Your task to perform on an android device: Clear all items from cart on amazon. Add usb-c to the cart on amazon Image 0: 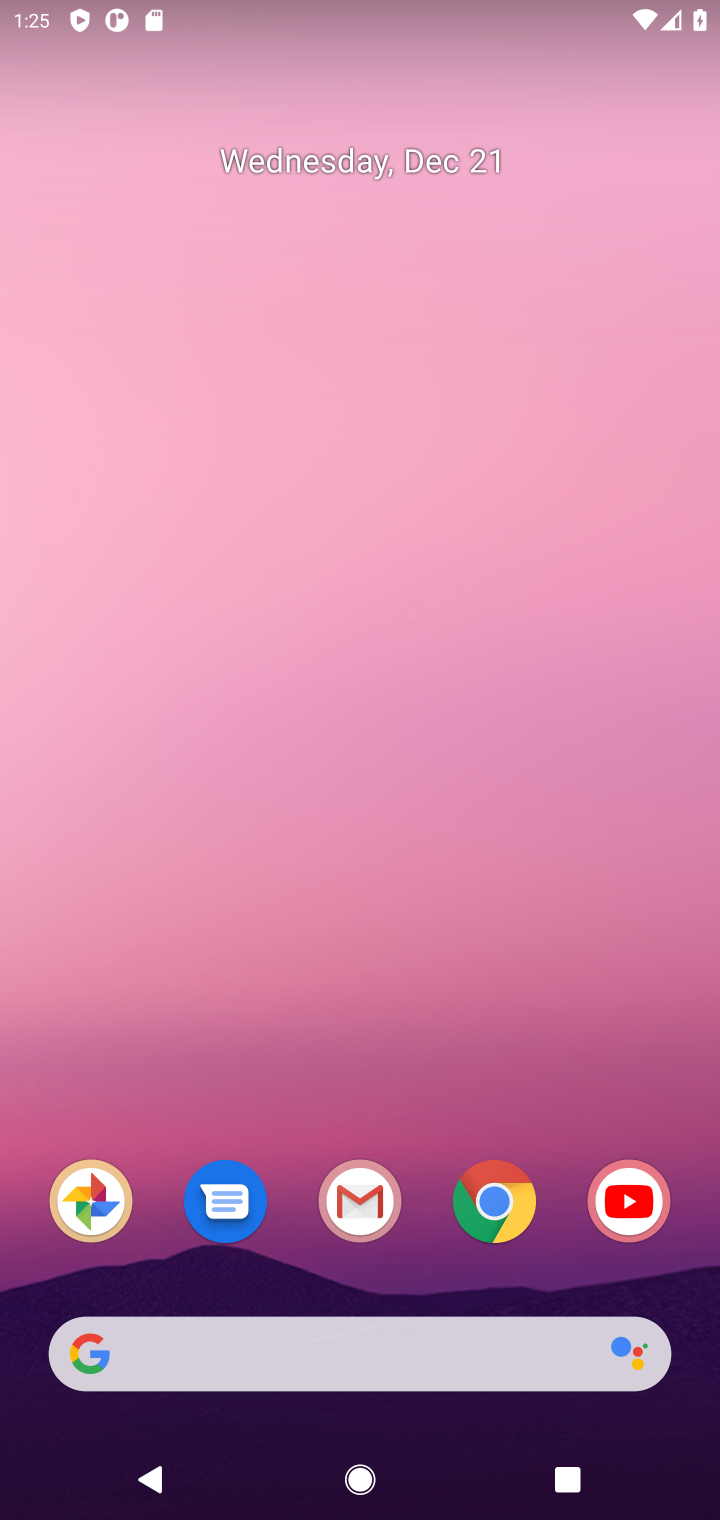
Step 0: click (502, 1195)
Your task to perform on an android device: Clear all items from cart on amazon. Add usb-c to the cart on amazon Image 1: 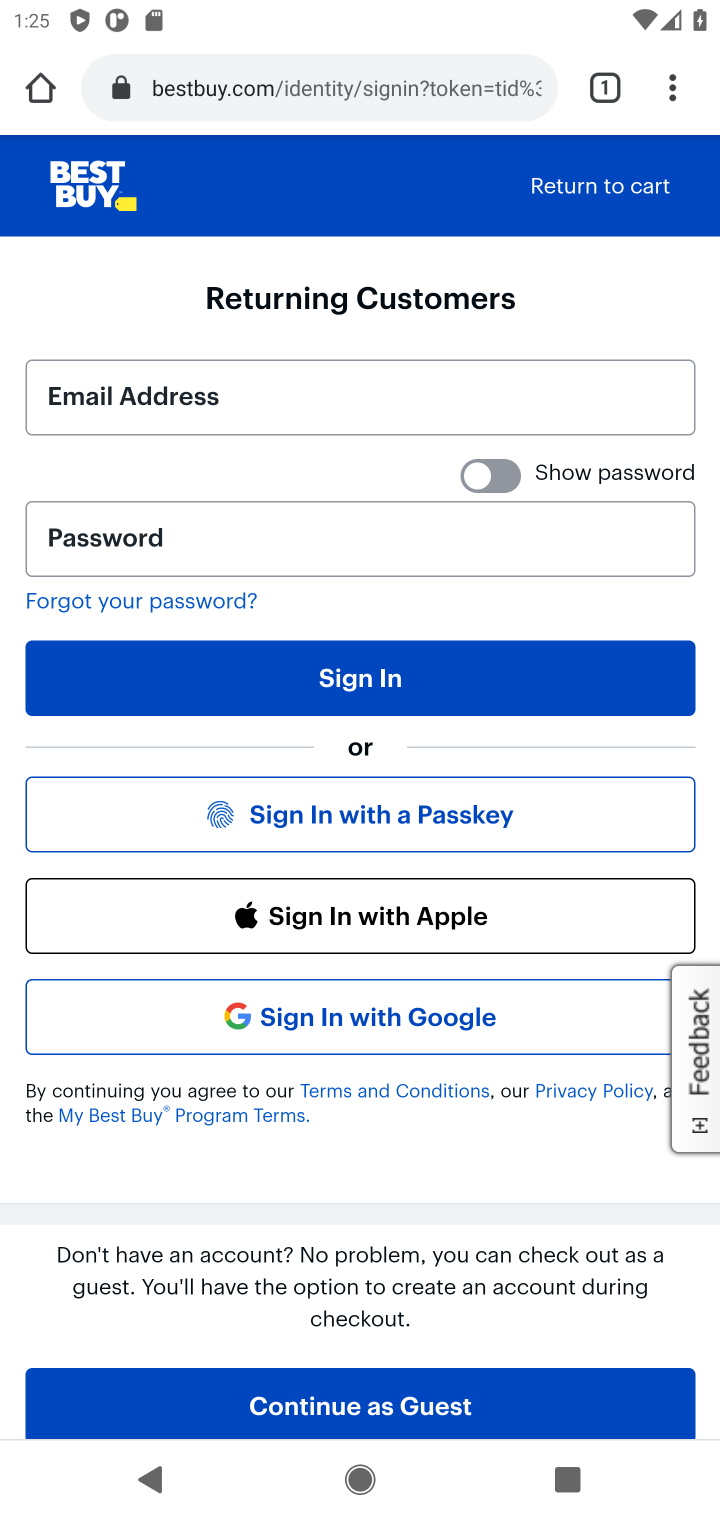
Step 1: click (245, 93)
Your task to perform on an android device: Clear all items from cart on amazon. Add usb-c to the cart on amazon Image 2: 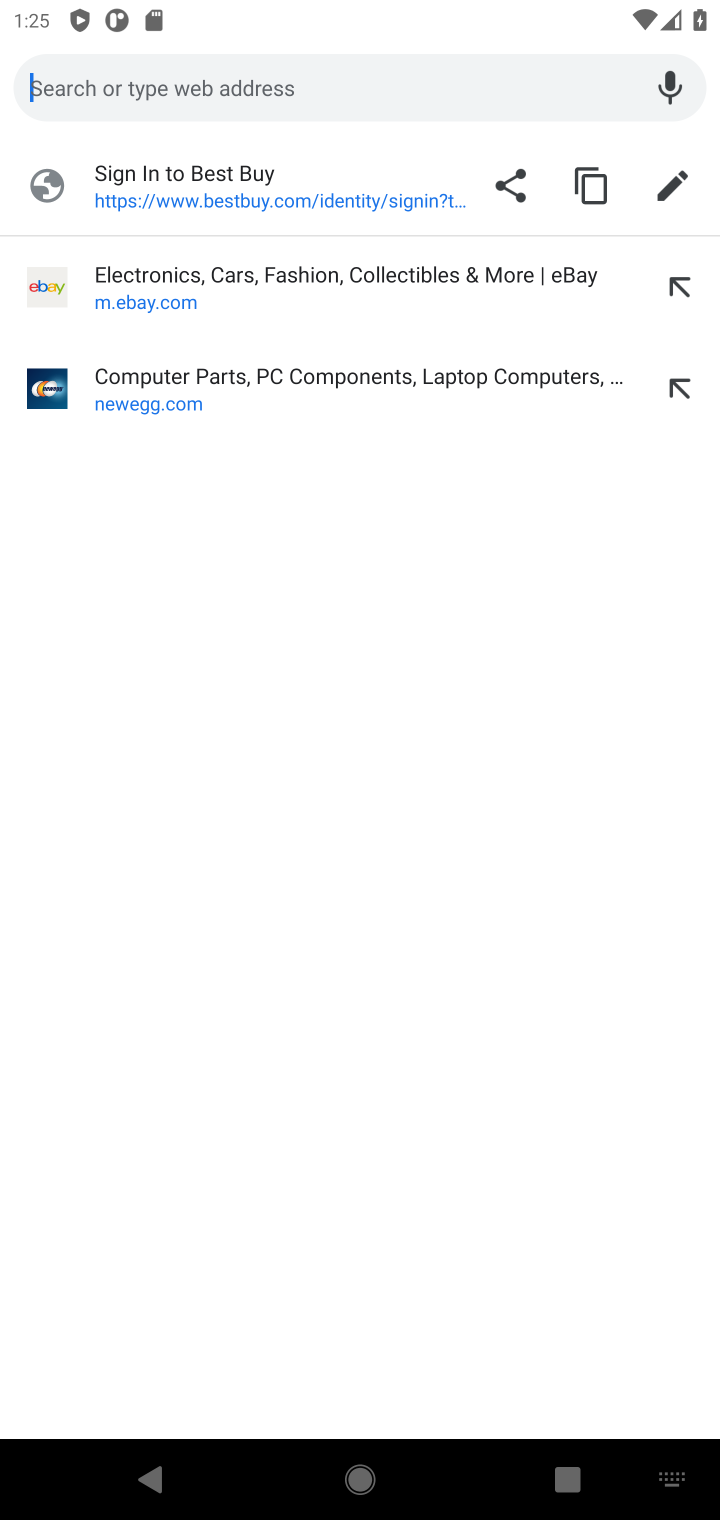
Step 2: type "amazon.com"
Your task to perform on an android device: Clear all items from cart on amazon. Add usb-c to the cart on amazon Image 3: 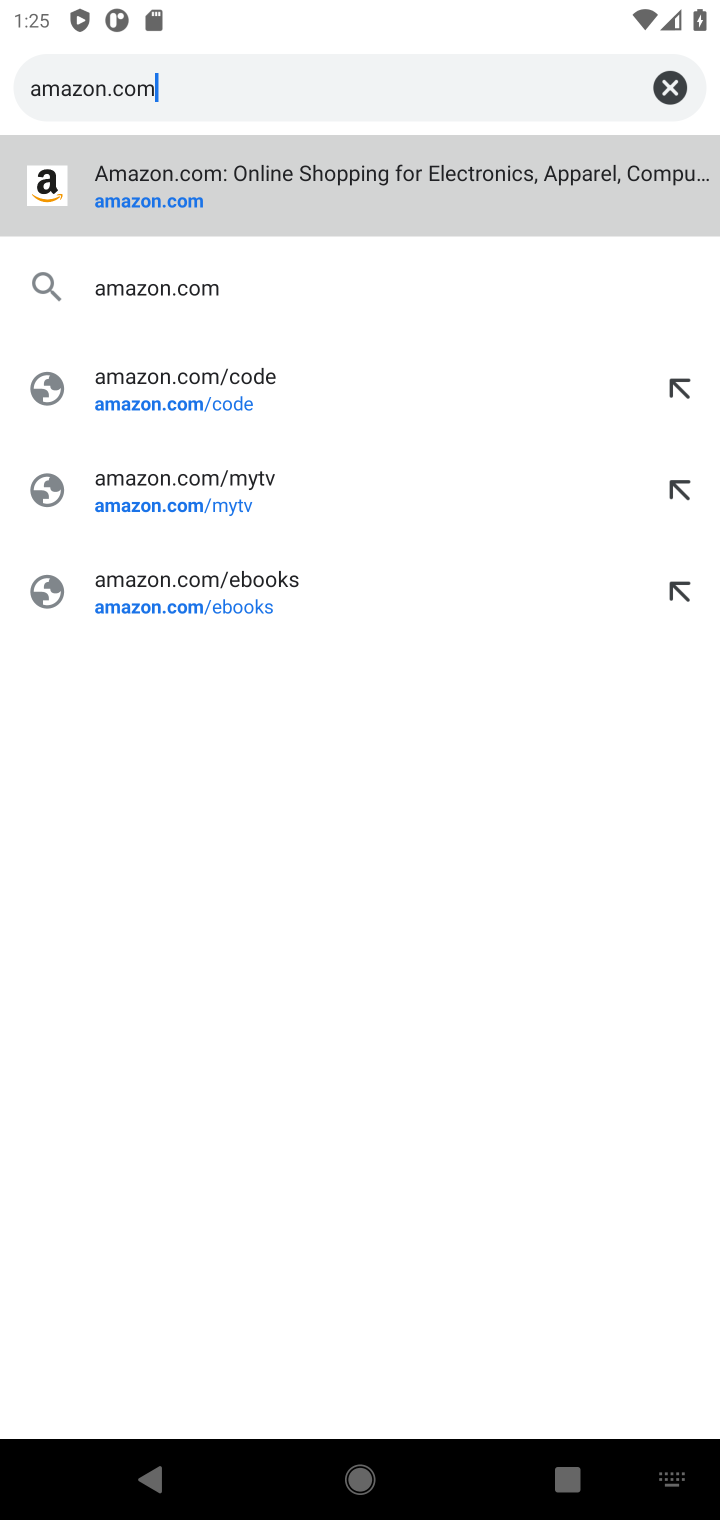
Step 3: click (150, 186)
Your task to perform on an android device: Clear all items from cart on amazon. Add usb-c to the cart on amazon Image 4: 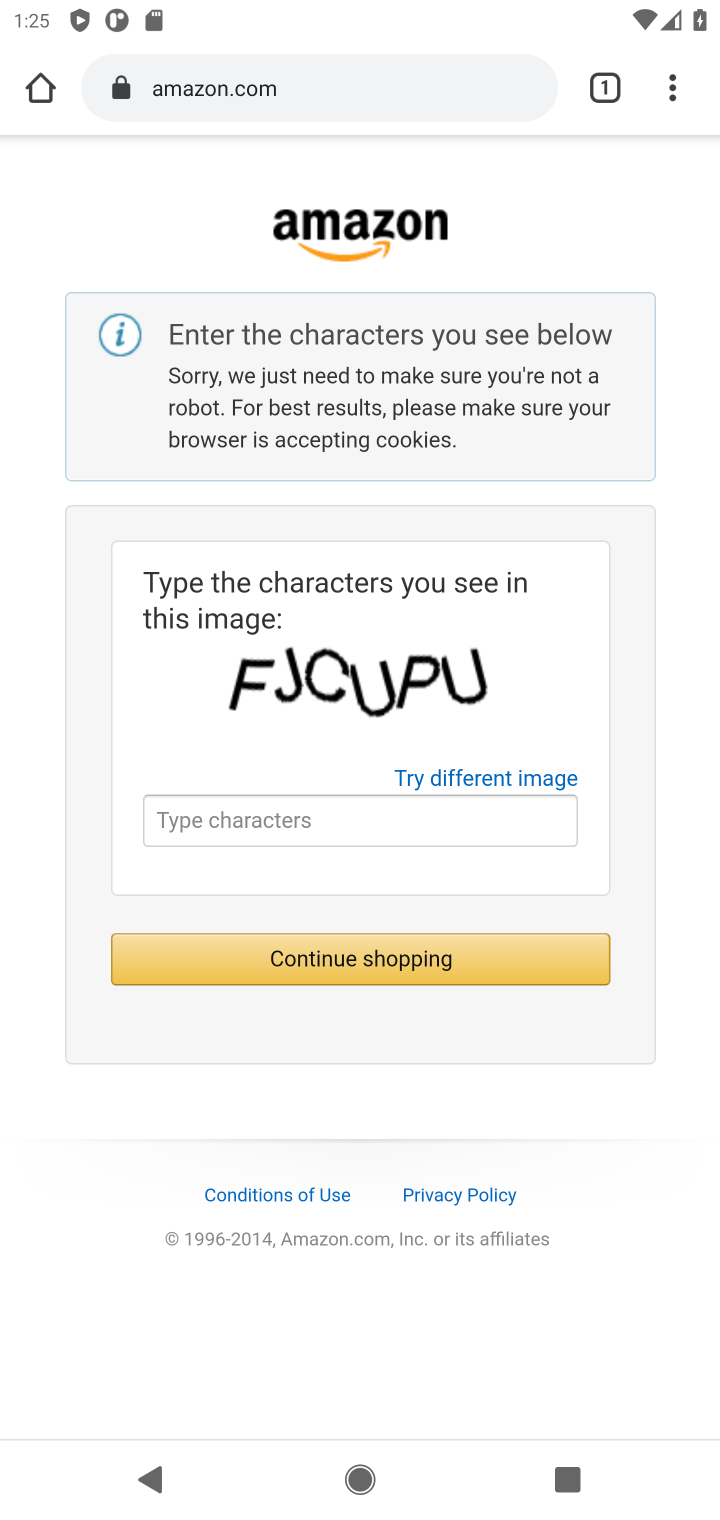
Step 4: click (205, 802)
Your task to perform on an android device: Clear all items from cart on amazon. Add usb-c to the cart on amazon Image 5: 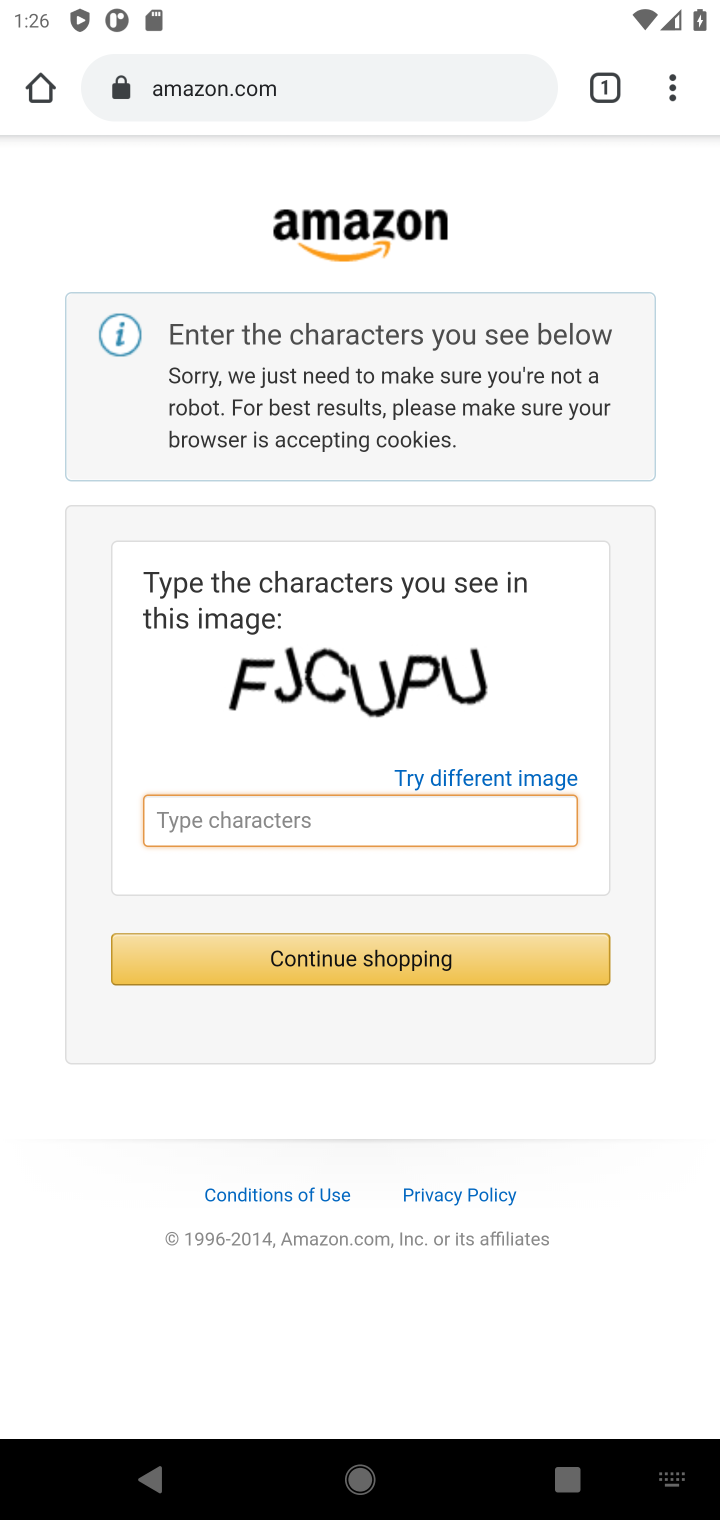
Step 5: type "FJCUPU"
Your task to perform on an android device: Clear all items from cart on amazon. Add usb-c to the cart on amazon Image 6: 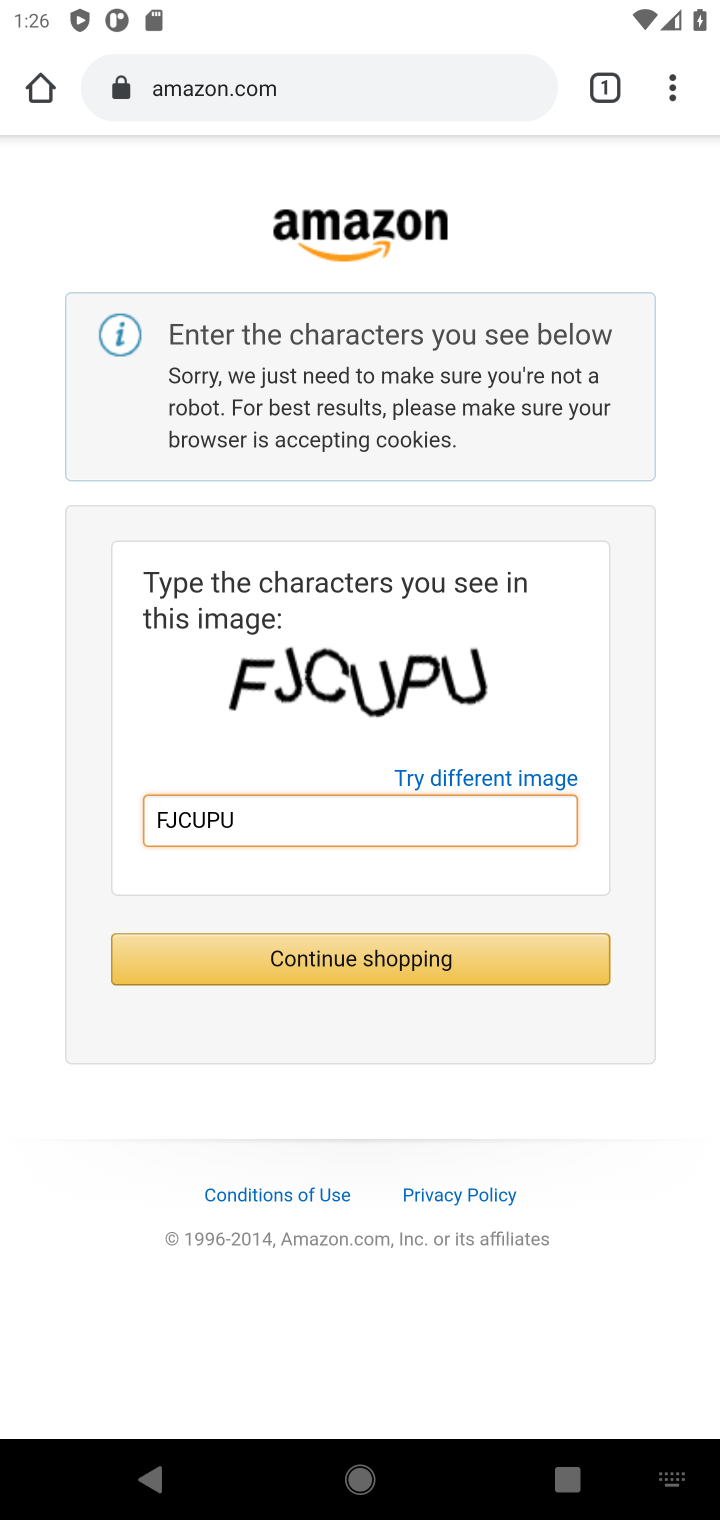
Step 6: click (370, 970)
Your task to perform on an android device: Clear all items from cart on amazon. Add usb-c to the cart on amazon Image 7: 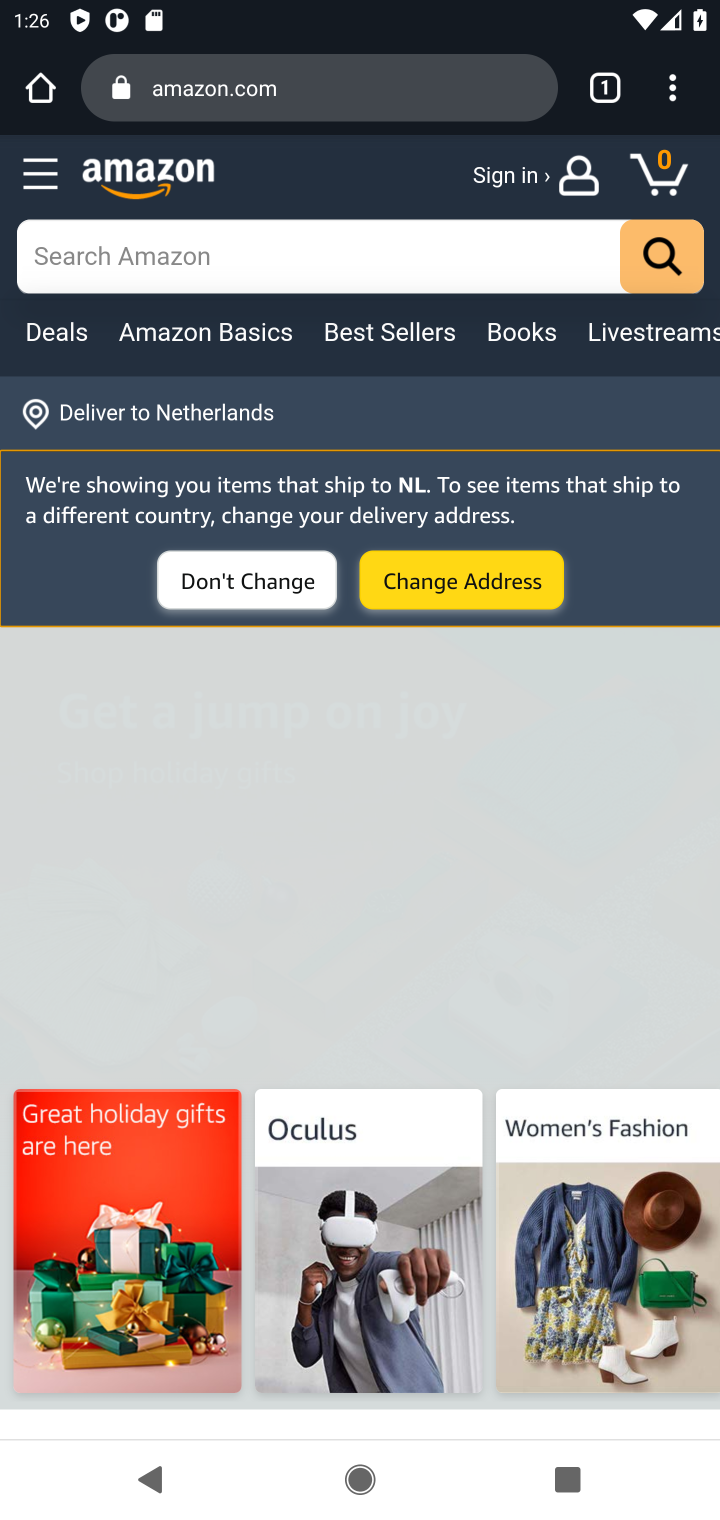
Step 7: click (659, 177)
Your task to perform on an android device: Clear all items from cart on amazon. Add usb-c to the cart on amazon Image 8: 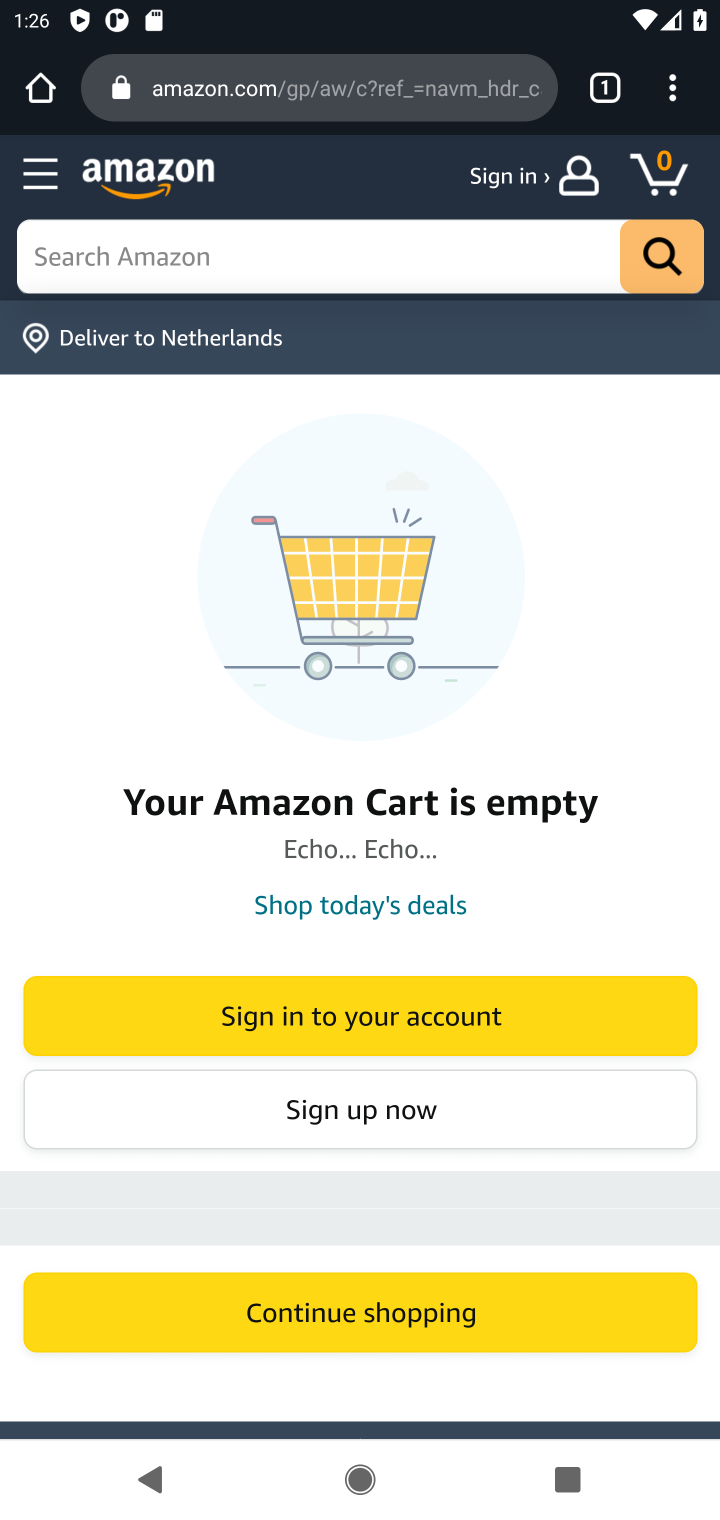
Step 8: click (218, 251)
Your task to perform on an android device: Clear all items from cart on amazon. Add usb-c to the cart on amazon Image 9: 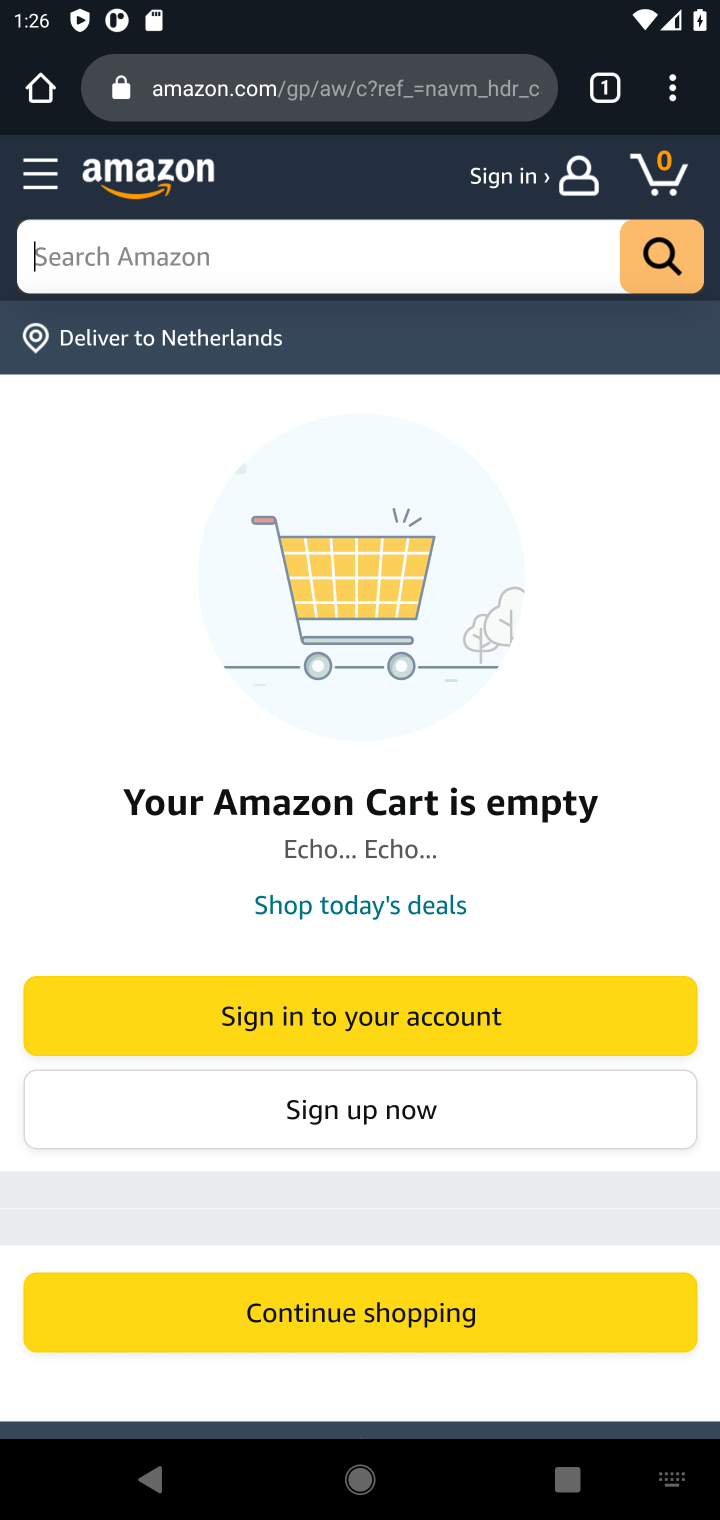
Step 9: type "usb-c"
Your task to perform on an android device: Clear all items from cart on amazon. Add usb-c to the cart on amazon Image 10: 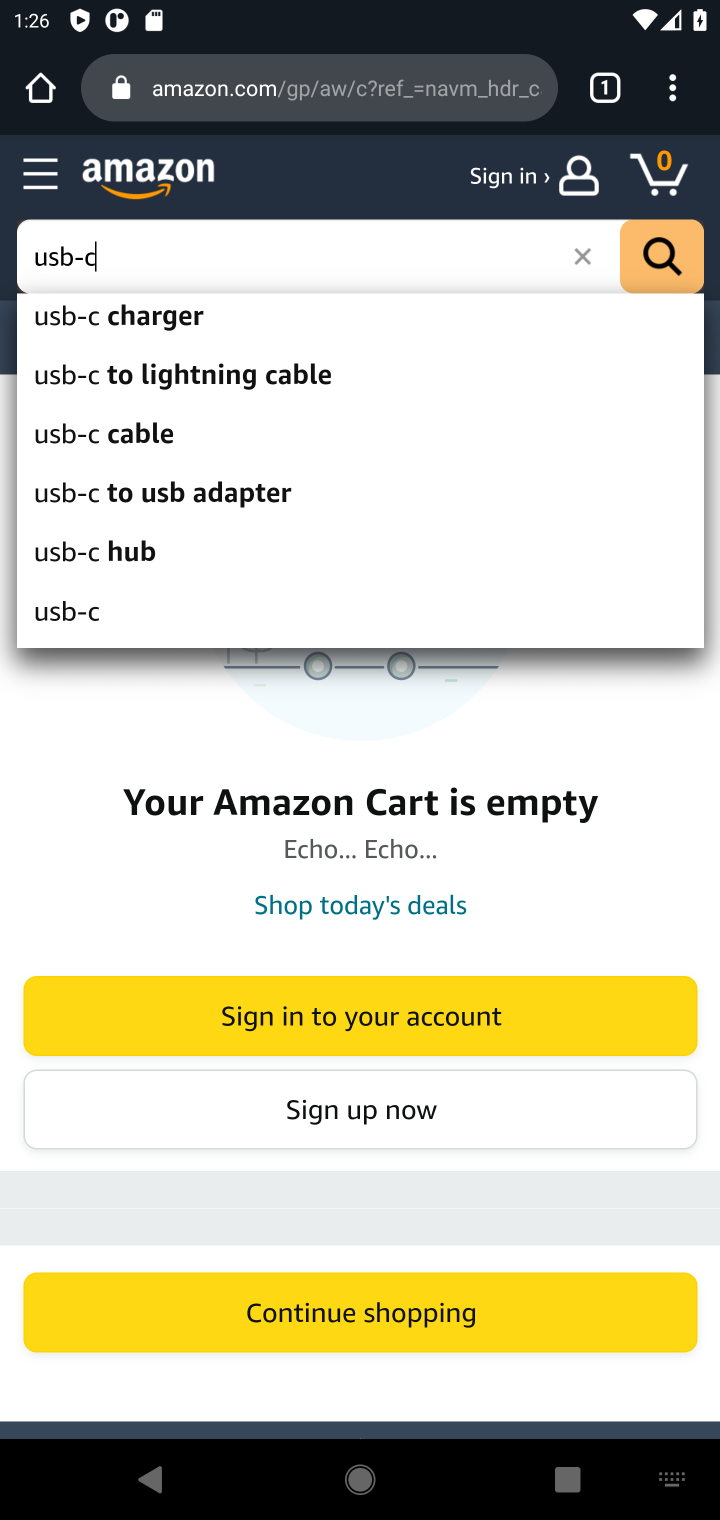
Step 10: click (75, 614)
Your task to perform on an android device: Clear all items from cart on amazon. Add usb-c to the cart on amazon Image 11: 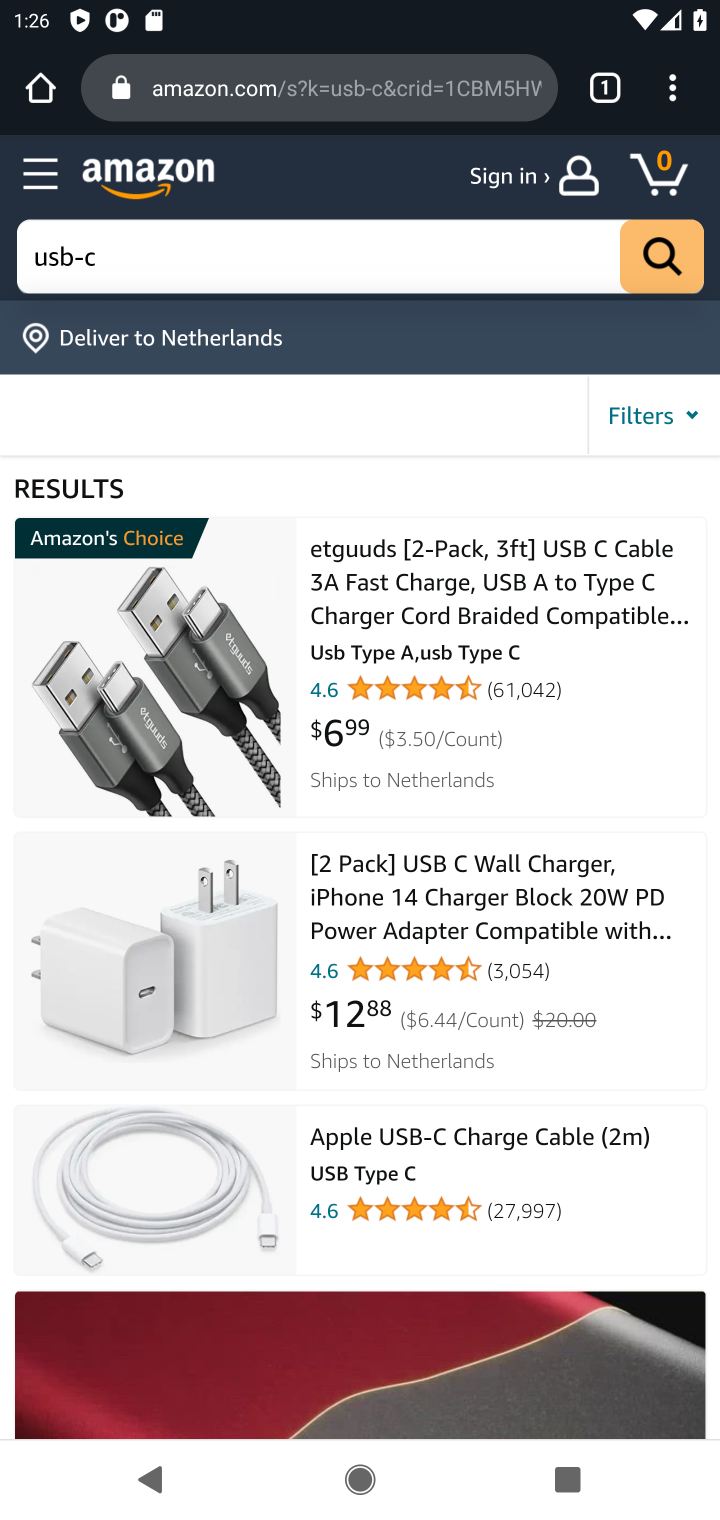
Step 11: click (412, 600)
Your task to perform on an android device: Clear all items from cart on amazon. Add usb-c to the cart on amazon Image 12: 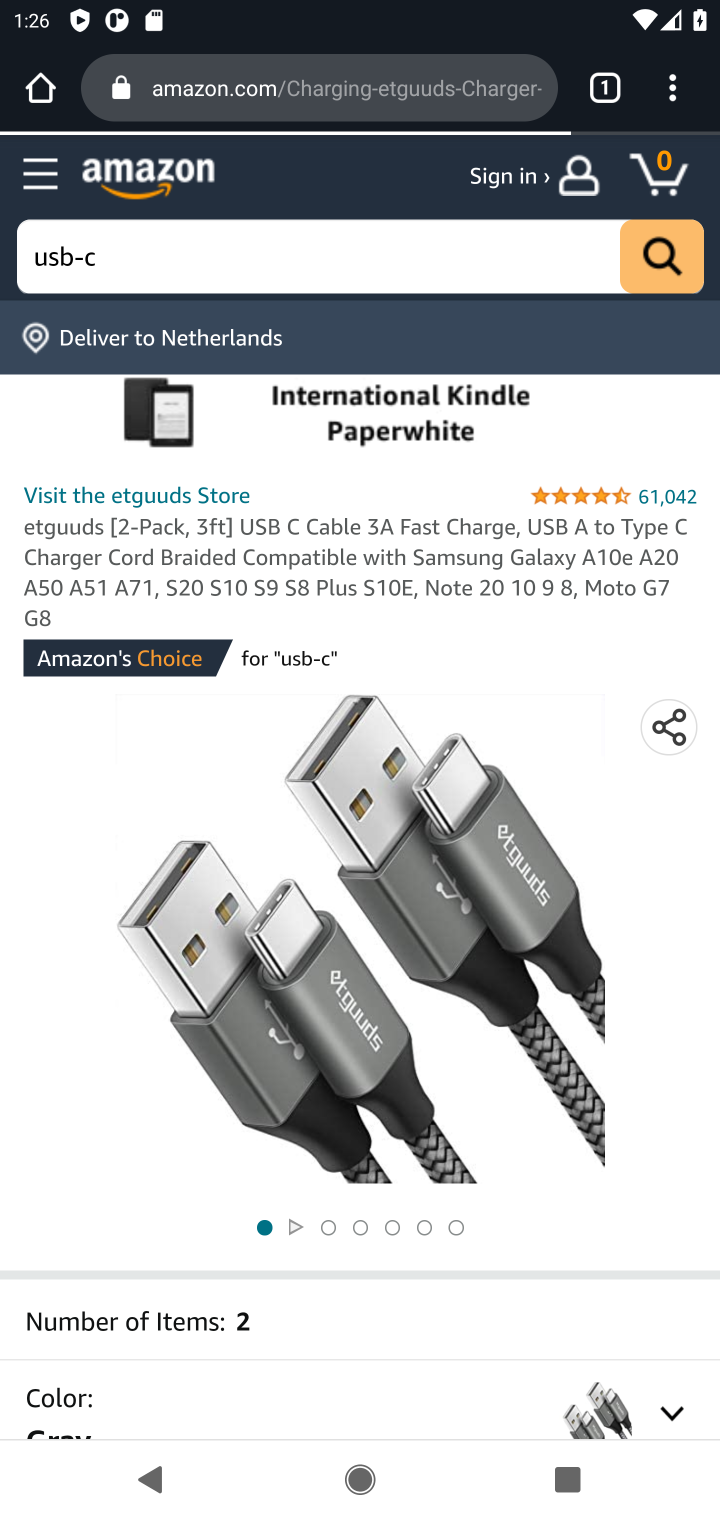
Step 12: drag from (290, 931) to (264, 470)
Your task to perform on an android device: Clear all items from cart on amazon. Add usb-c to the cart on amazon Image 13: 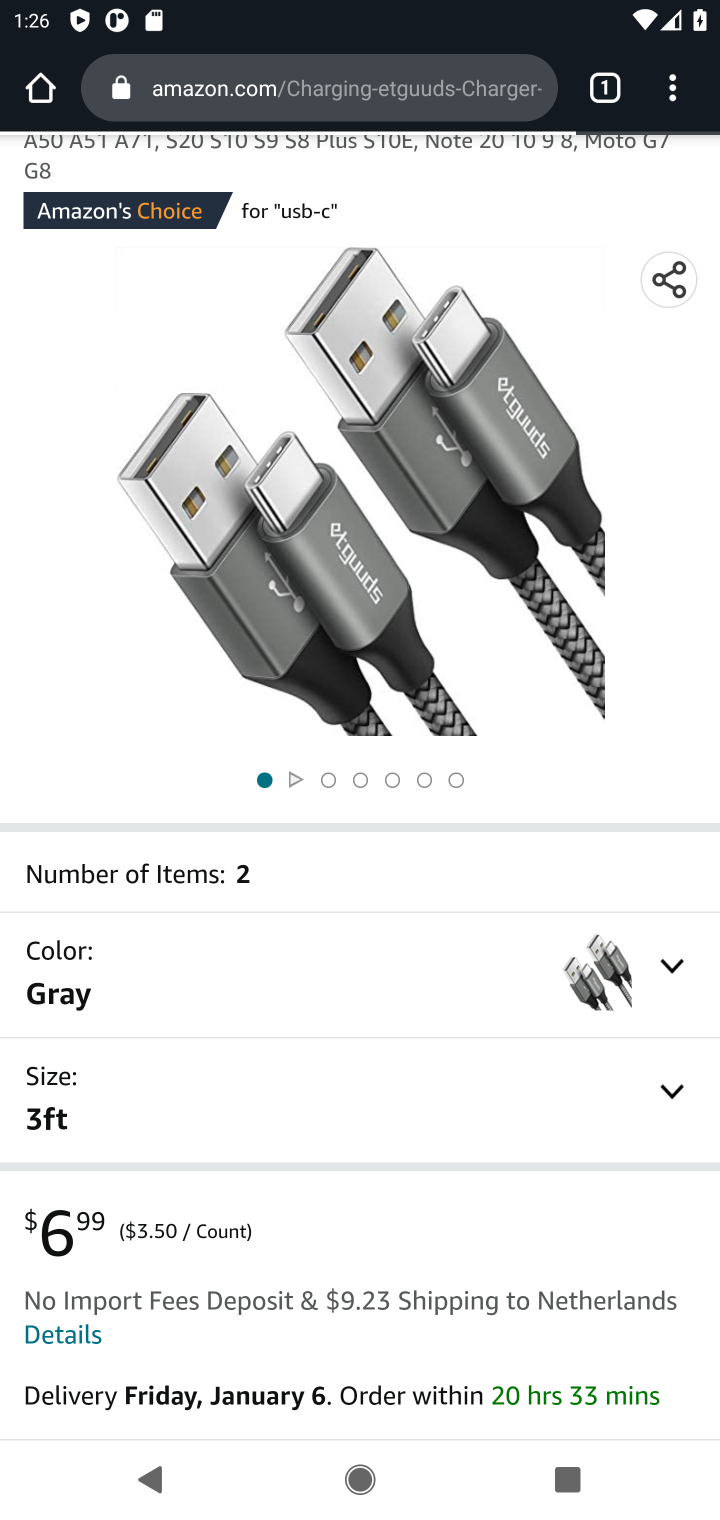
Step 13: drag from (324, 1041) to (345, 516)
Your task to perform on an android device: Clear all items from cart on amazon. Add usb-c to the cart on amazon Image 14: 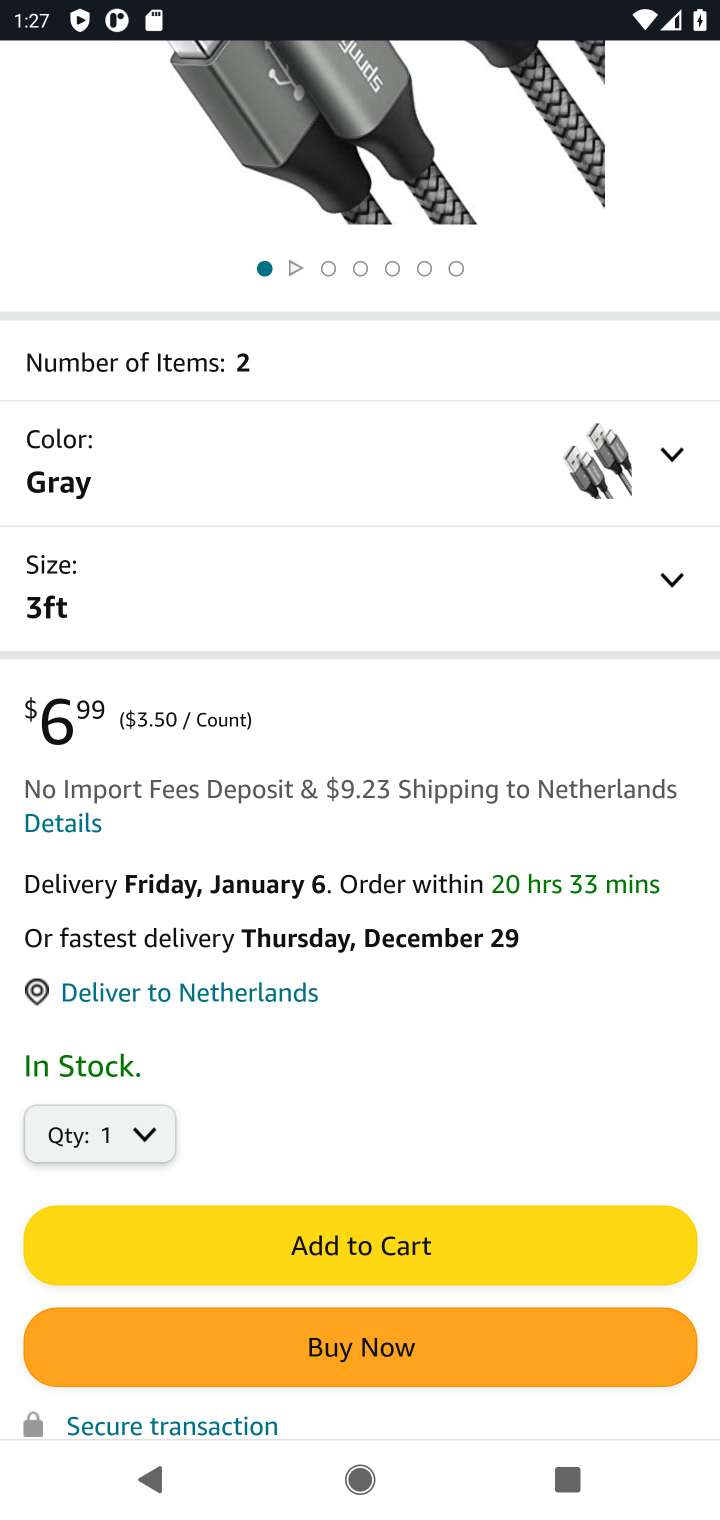
Step 14: click (298, 1238)
Your task to perform on an android device: Clear all items from cart on amazon. Add usb-c to the cart on amazon Image 15: 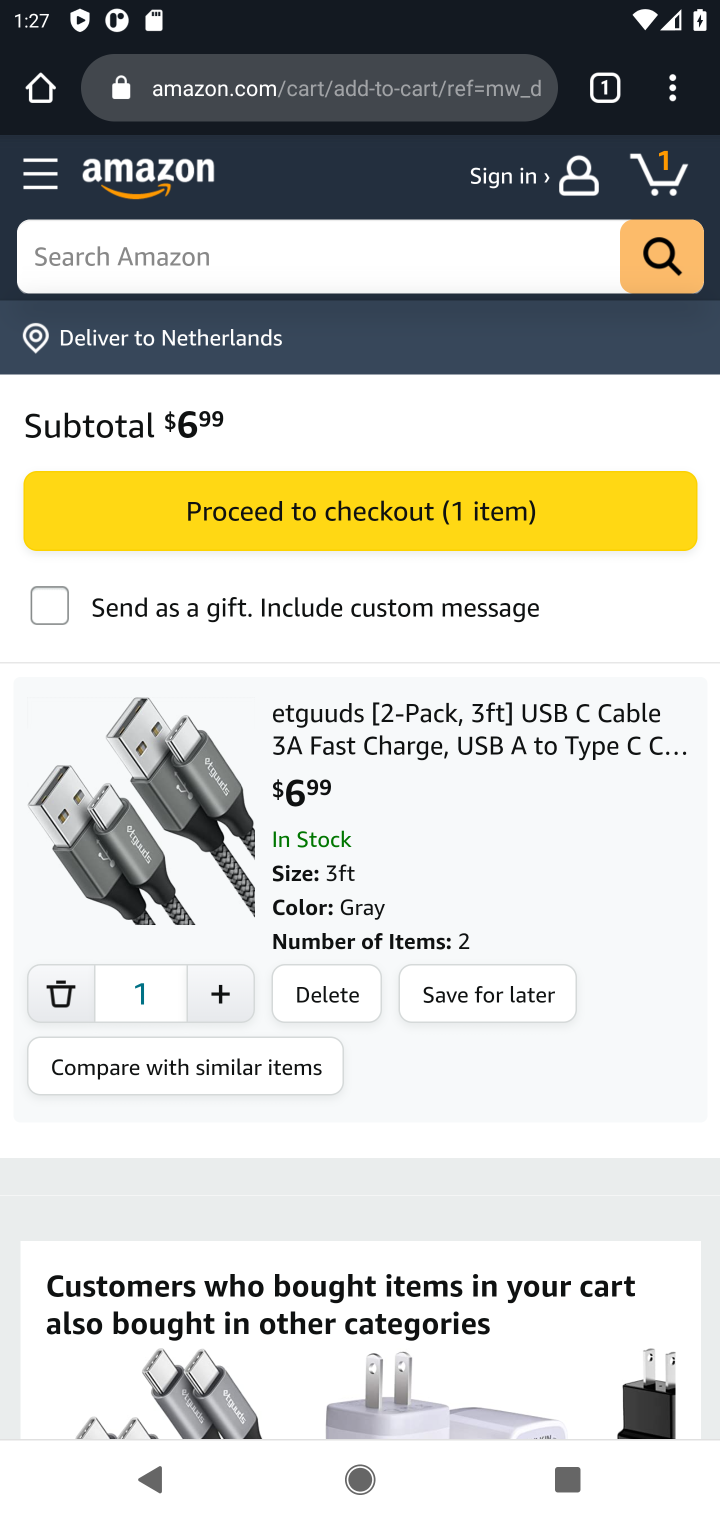
Step 15: task complete